Your task to perform on an android device: Open the Play Movies app and select the watchlist tab. Image 0: 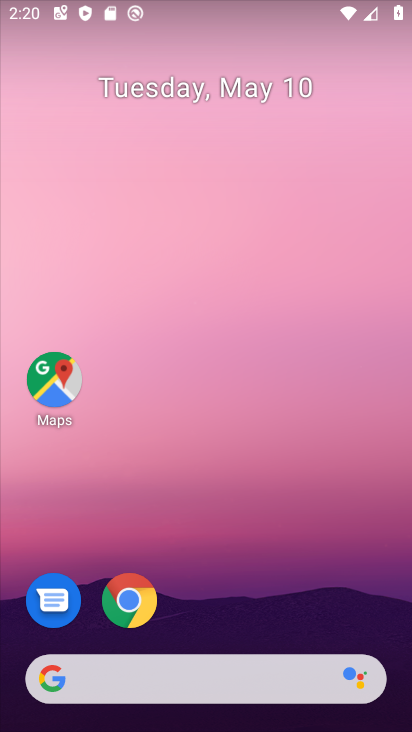
Step 0: drag from (268, 592) to (284, 123)
Your task to perform on an android device: Open the Play Movies app and select the watchlist tab. Image 1: 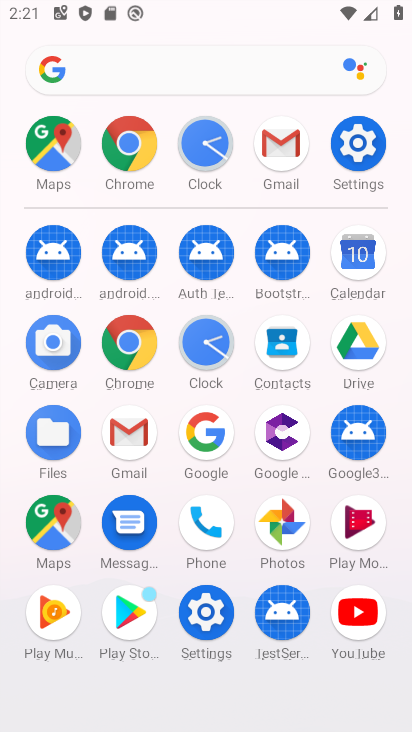
Step 1: click (372, 539)
Your task to perform on an android device: Open the Play Movies app and select the watchlist tab. Image 2: 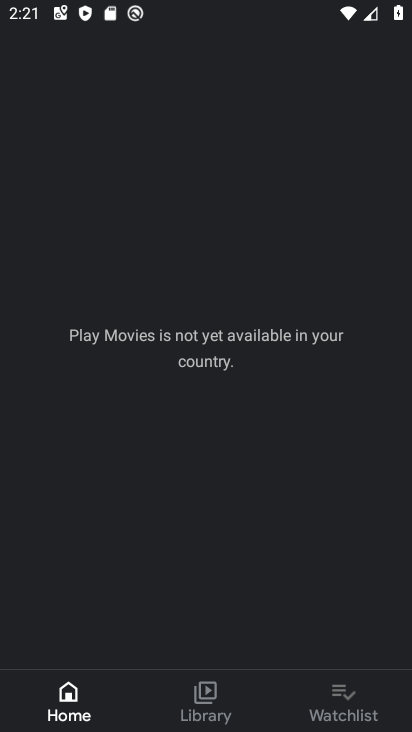
Step 2: click (340, 699)
Your task to perform on an android device: Open the Play Movies app and select the watchlist tab. Image 3: 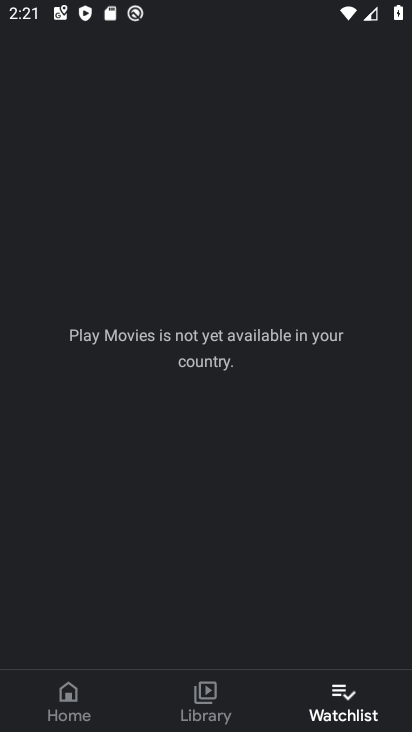
Step 3: click (335, 704)
Your task to perform on an android device: Open the Play Movies app and select the watchlist tab. Image 4: 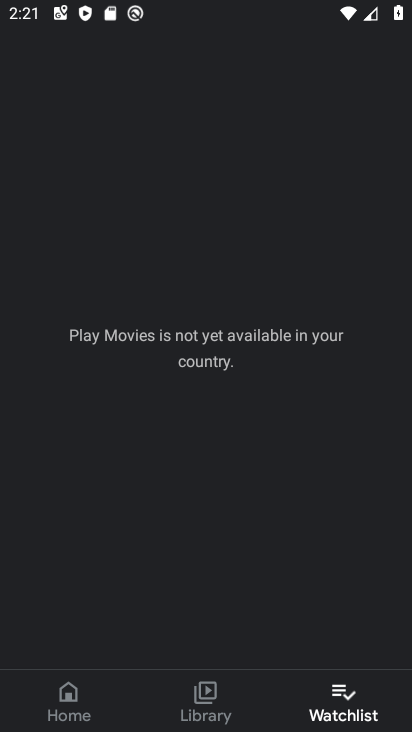
Step 4: task complete